Your task to perform on an android device: Search for Mexican restaurants on Maps Image 0: 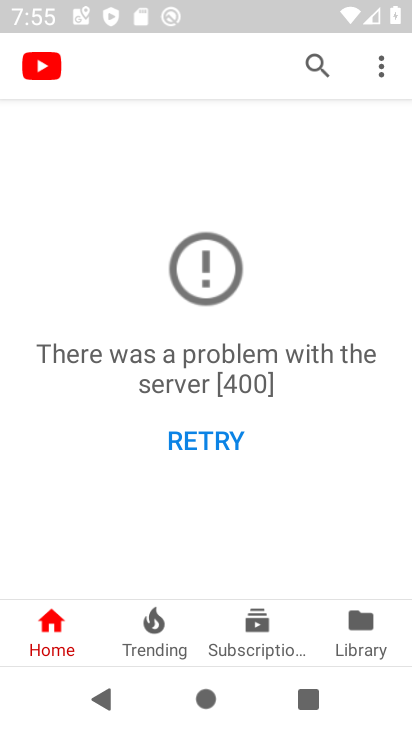
Step 0: press home button
Your task to perform on an android device: Search for Mexican restaurants on Maps Image 1: 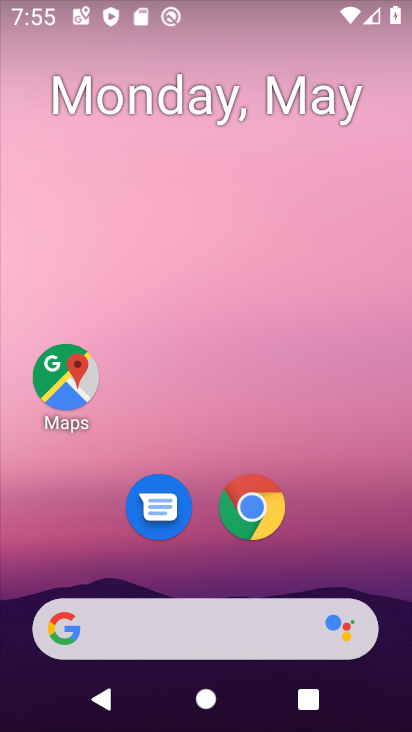
Step 1: drag from (215, 564) to (242, 58)
Your task to perform on an android device: Search for Mexican restaurants on Maps Image 2: 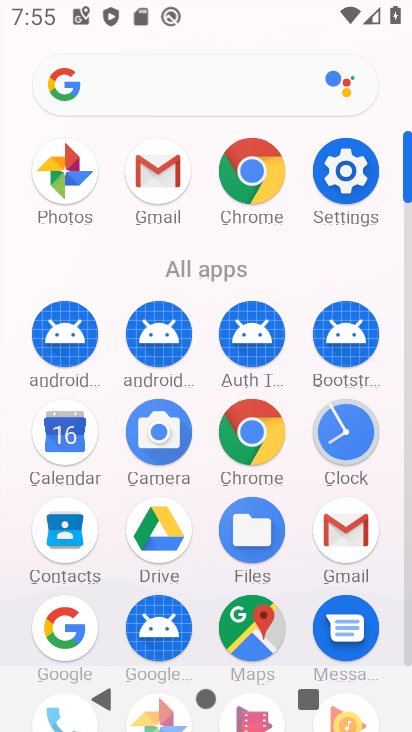
Step 2: click (253, 624)
Your task to perform on an android device: Search for Mexican restaurants on Maps Image 3: 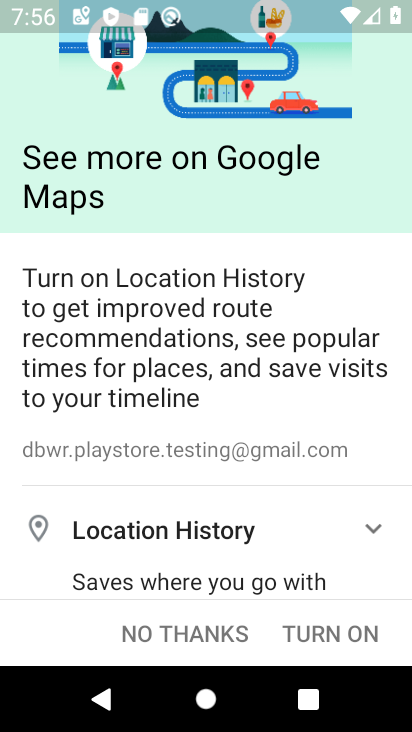
Step 3: click (313, 630)
Your task to perform on an android device: Search for Mexican restaurants on Maps Image 4: 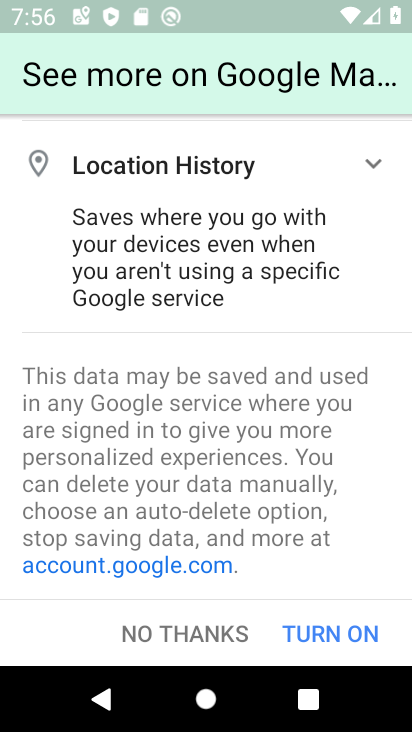
Step 4: click (326, 628)
Your task to perform on an android device: Search for Mexican restaurants on Maps Image 5: 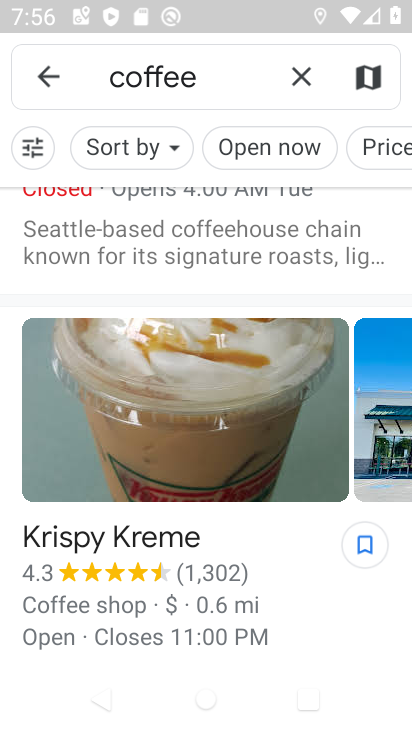
Step 5: click (303, 73)
Your task to perform on an android device: Search for Mexican restaurants on Maps Image 6: 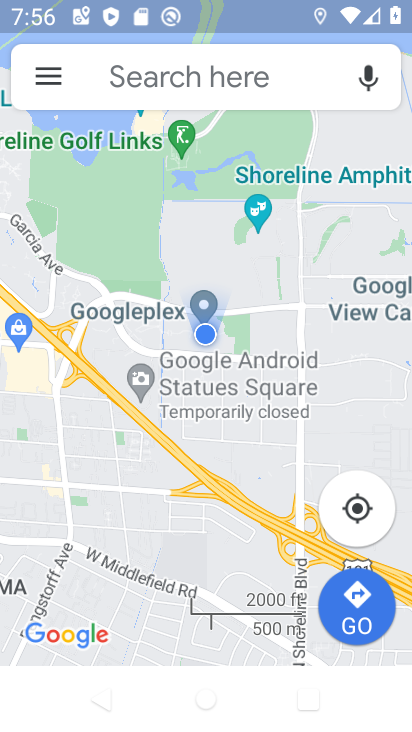
Step 6: click (166, 72)
Your task to perform on an android device: Search for Mexican restaurants on Maps Image 7: 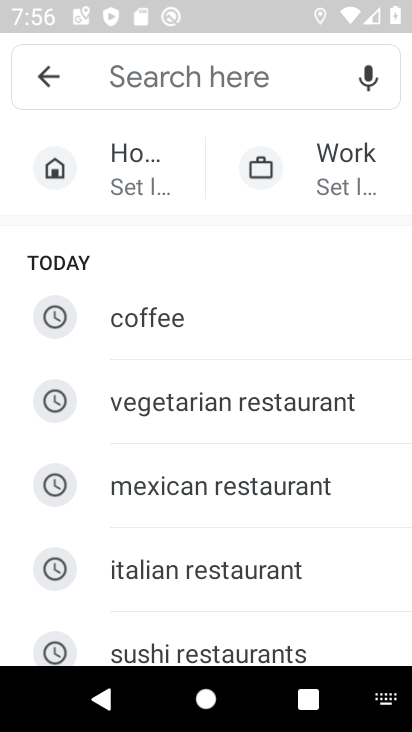
Step 7: click (237, 496)
Your task to perform on an android device: Search for Mexican restaurants on Maps Image 8: 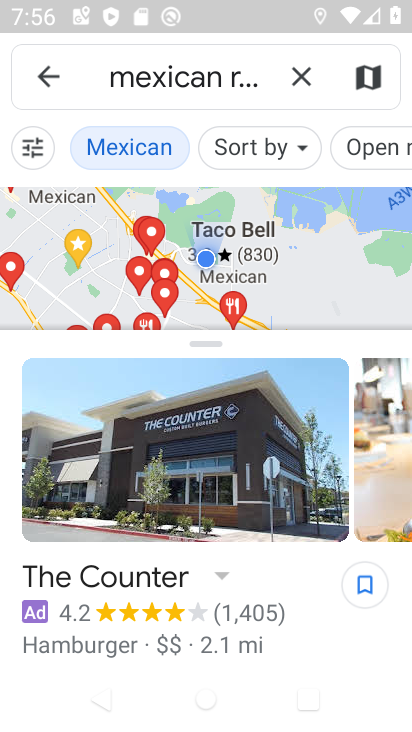
Step 8: task complete